Your task to perform on an android device: turn off sleep mode Image 0: 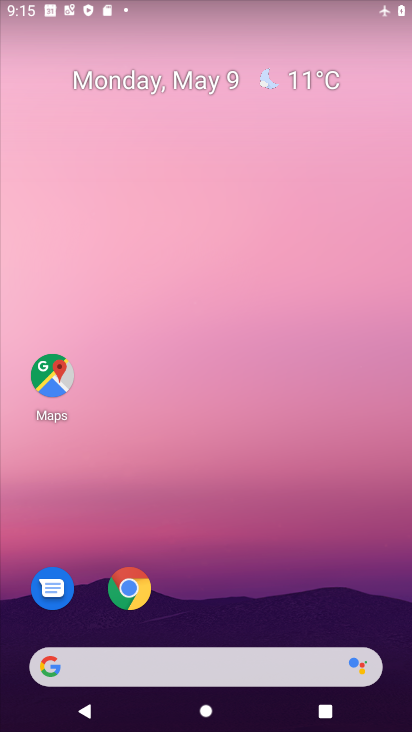
Step 0: press home button
Your task to perform on an android device: turn off sleep mode Image 1: 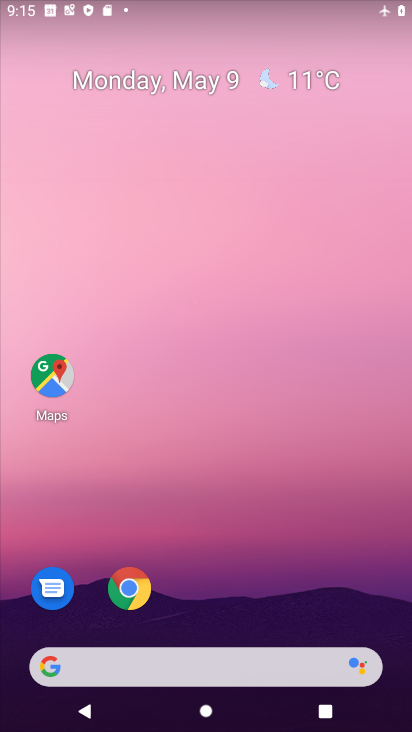
Step 1: drag from (153, 679) to (315, 49)
Your task to perform on an android device: turn off sleep mode Image 2: 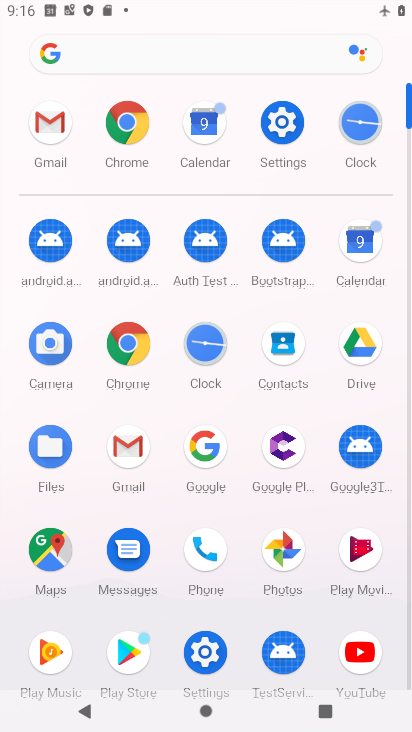
Step 2: click (282, 128)
Your task to perform on an android device: turn off sleep mode Image 3: 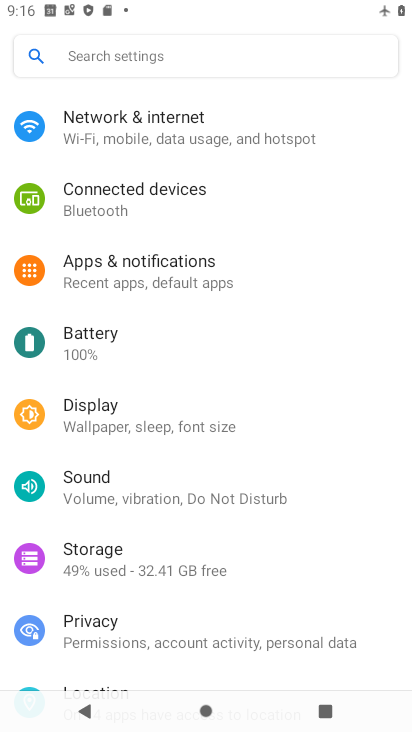
Step 3: click (122, 424)
Your task to perform on an android device: turn off sleep mode Image 4: 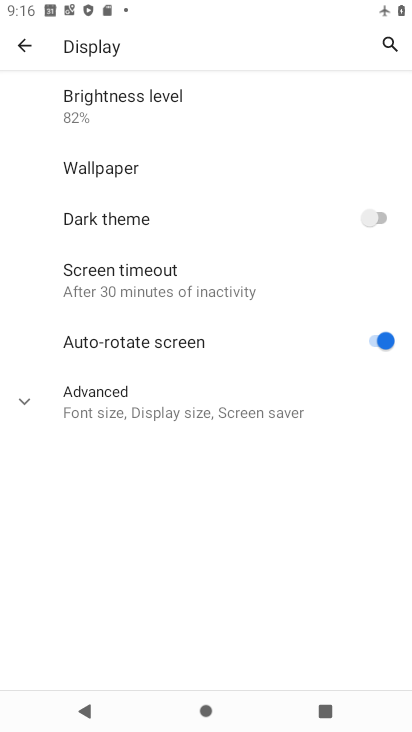
Step 4: task complete